Your task to perform on an android device: Go to Yahoo.com Image 0: 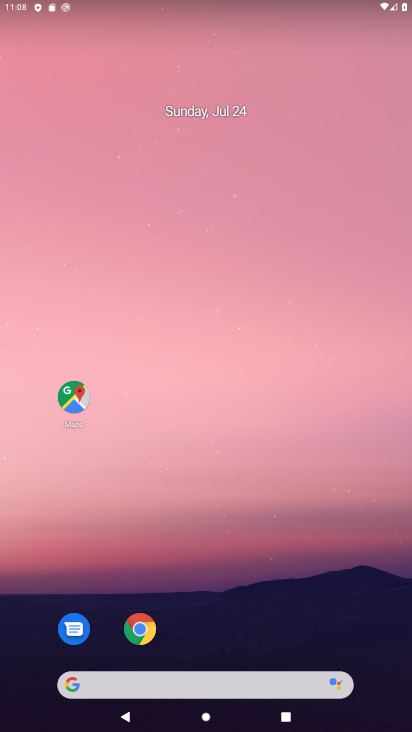
Step 0: drag from (219, 625) to (205, 12)
Your task to perform on an android device: Go to Yahoo.com Image 1: 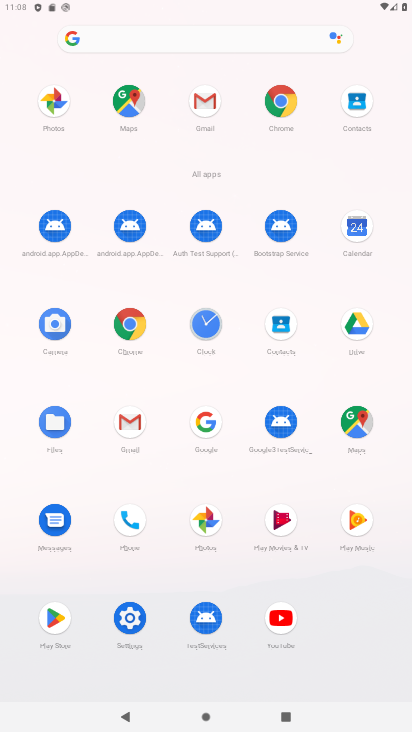
Step 1: click (295, 104)
Your task to perform on an android device: Go to Yahoo.com Image 2: 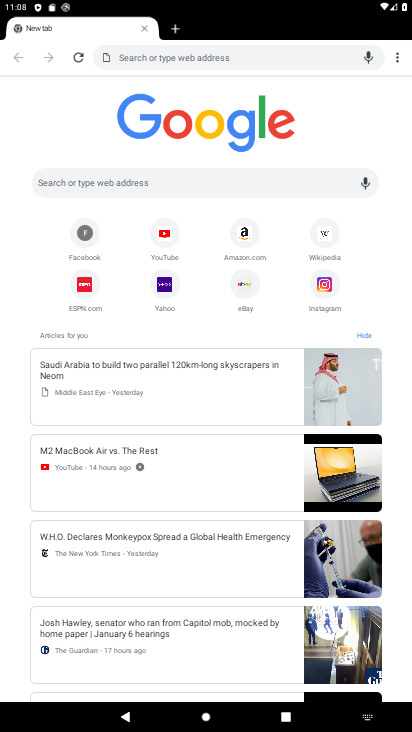
Step 2: click (173, 290)
Your task to perform on an android device: Go to Yahoo.com Image 3: 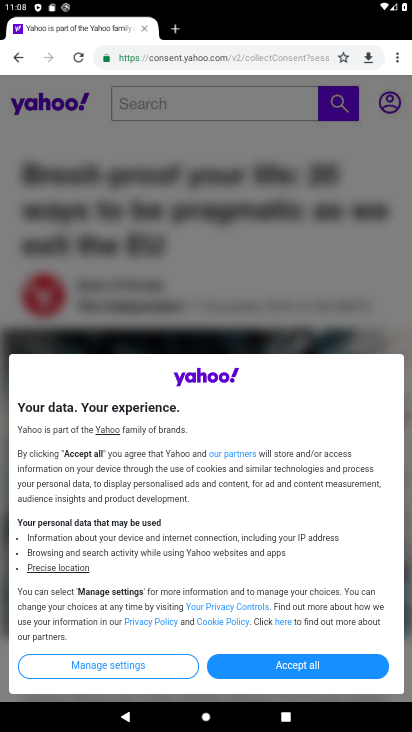
Step 3: task complete